Your task to perform on an android device: turn off data saver in the chrome app Image 0: 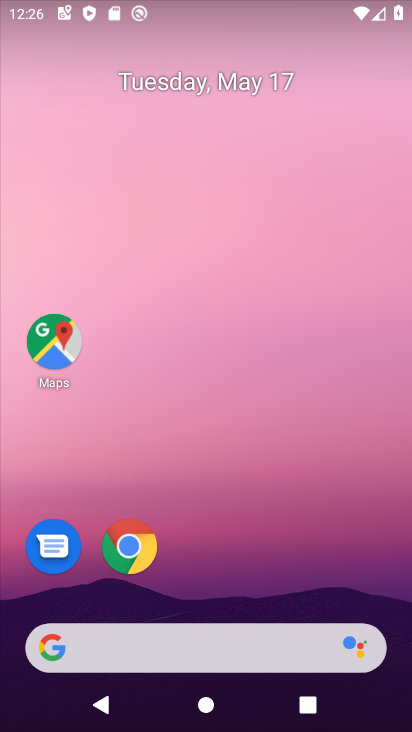
Step 0: click (129, 548)
Your task to perform on an android device: turn off data saver in the chrome app Image 1: 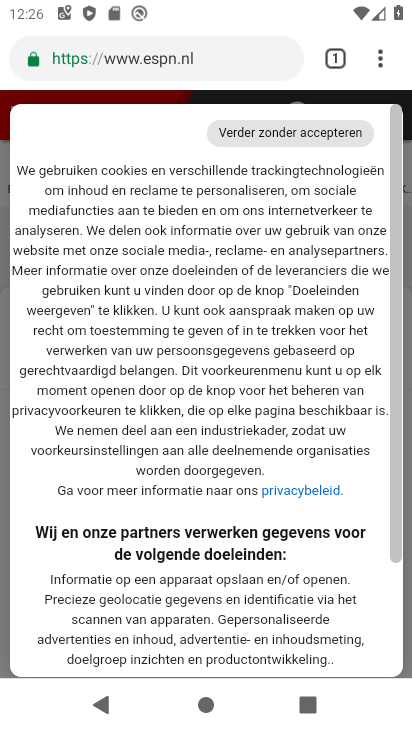
Step 1: click (381, 59)
Your task to perform on an android device: turn off data saver in the chrome app Image 2: 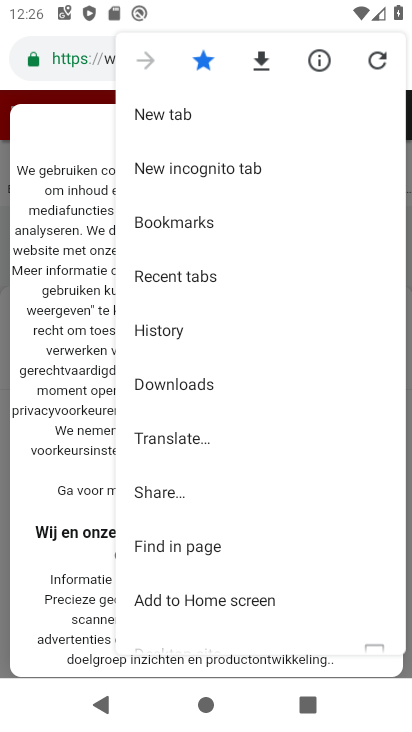
Step 2: drag from (319, 591) to (303, 113)
Your task to perform on an android device: turn off data saver in the chrome app Image 3: 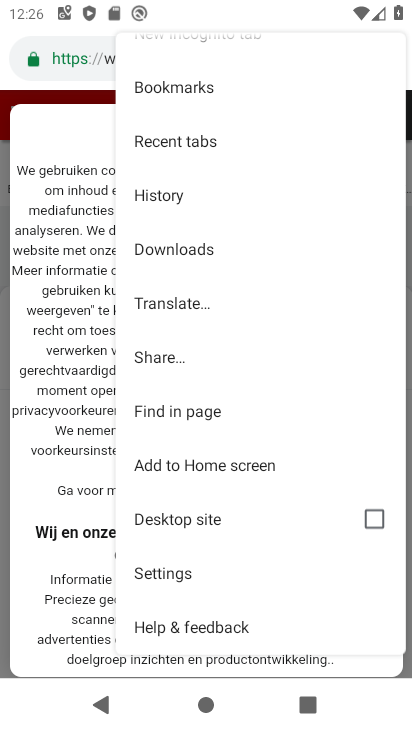
Step 3: click (171, 571)
Your task to perform on an android device: turn off data saver in the chrome app Image 4: 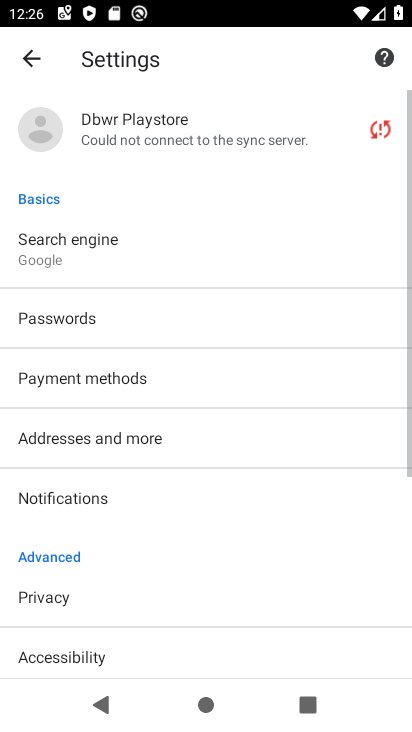
Step 4: drag from (246, 647) to (236, 320)
Your task to perform on an android device: turn off data saver in the chrome app Image 5: 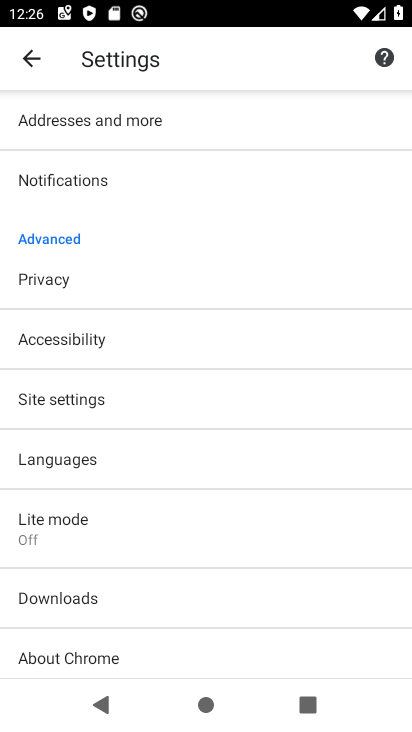
Step 5: click (46, 504)
Your task to perform on an android device: turn off data saver in the chrome app Image 6: 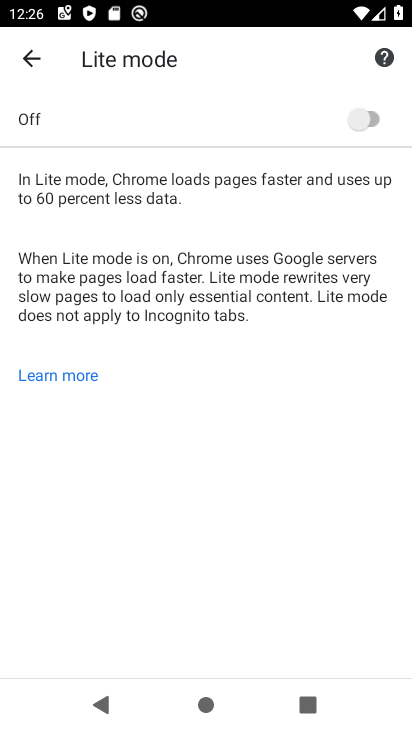
Step 6: task complete